Your task to perform on an android device: Open battery settings Image 0: 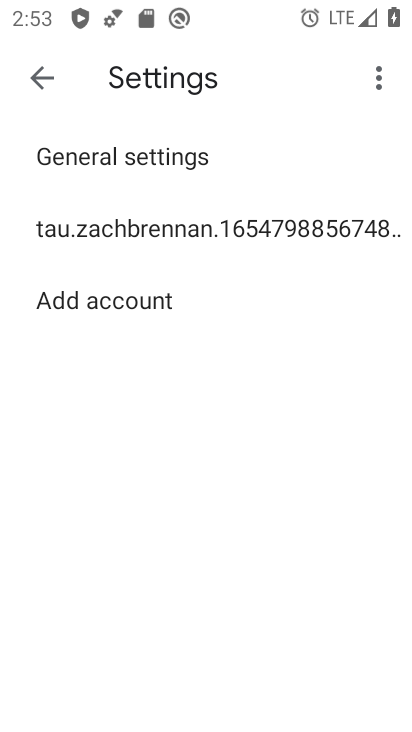
Step 0: press back button
Your task to perform on an android device: Open battery settings Image 1: 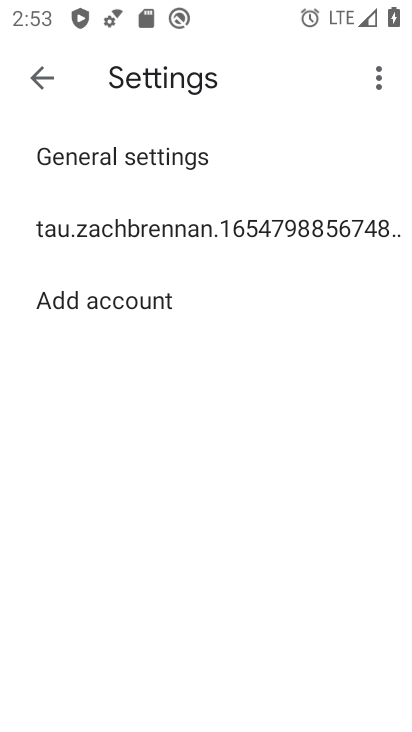
Step 1: press back button
Your task to perform on an android device: Open battery settings Image 2: 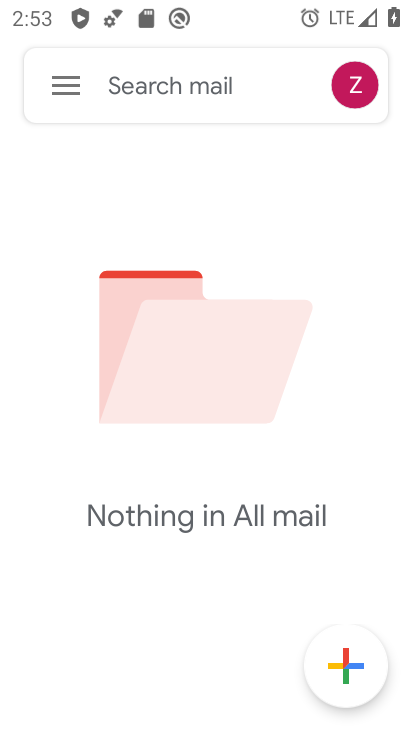
Step 2: press back button
Your task to perform on an android device: Open battery settings Image 3: 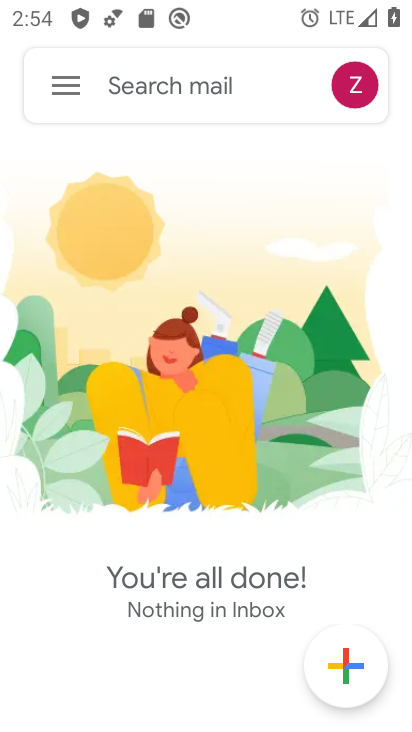
Step 3: press back button
Your task to perform on an android device: Open battery settings Image 4: 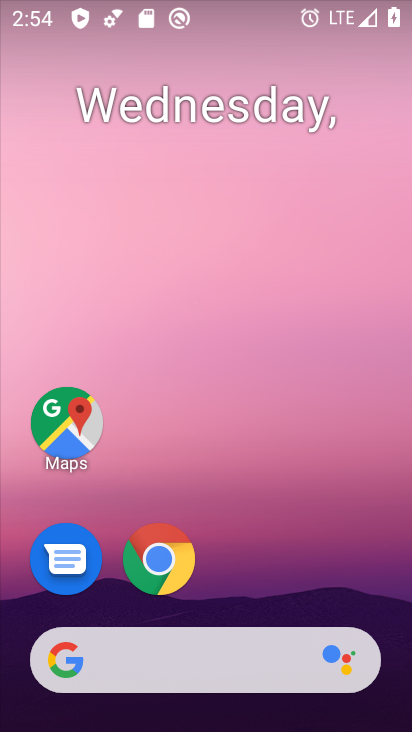
Step 4: drag from (234, 595) to (299, 15)
Your task to perform on an android device: Open battery settings Image 5: 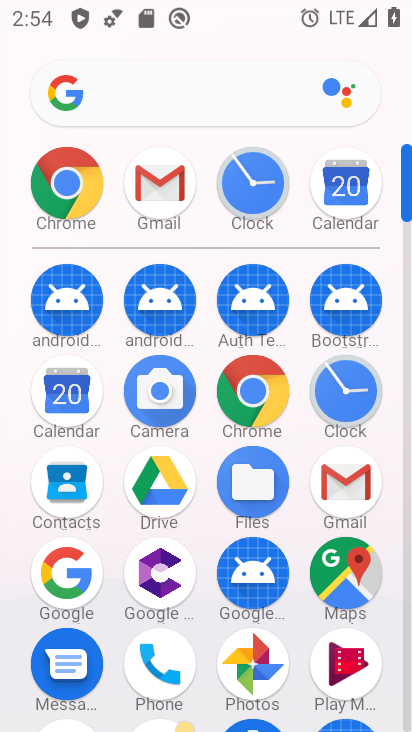
Step 5: drag from (145, 652) to (277, 69)
Your task to perform on an android device: Open battery settings Image 6: 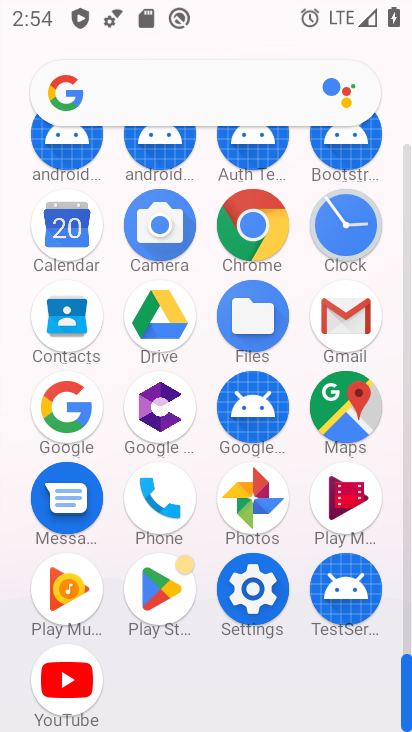
Step 6: click (256, 600)
Your task to perform on an android device: Open battery settings Image 7: 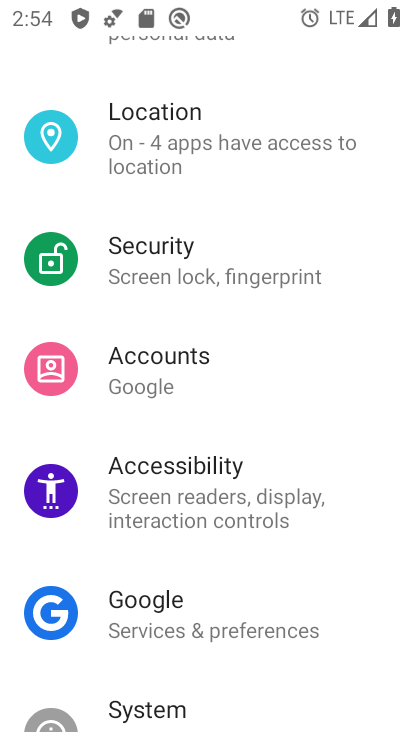
Step 7: drag from (239, 258) to (198, 728)
Your task to perform on an android device: Open battery settings Image 8: 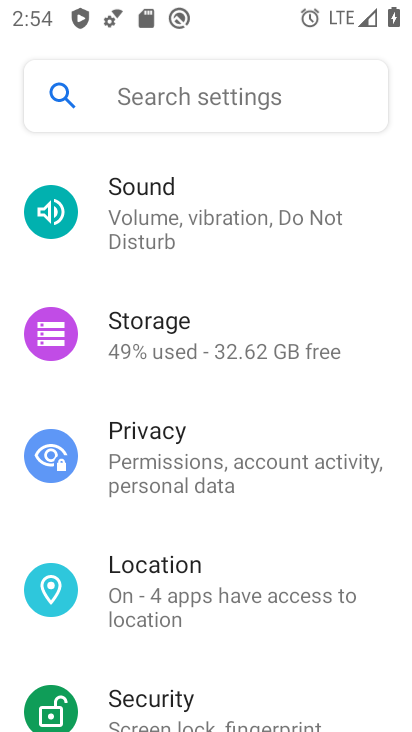
Step 8: drag from (184, 213) to (154, 723)
Your task to perform on an android device: Open battery settings Image 9: 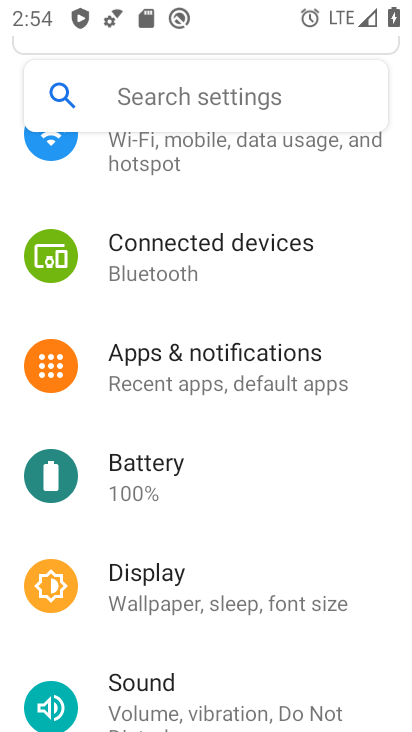
Step 9: click (138, 480)
Your task to perform on an android device: Open battery settings Image 10: 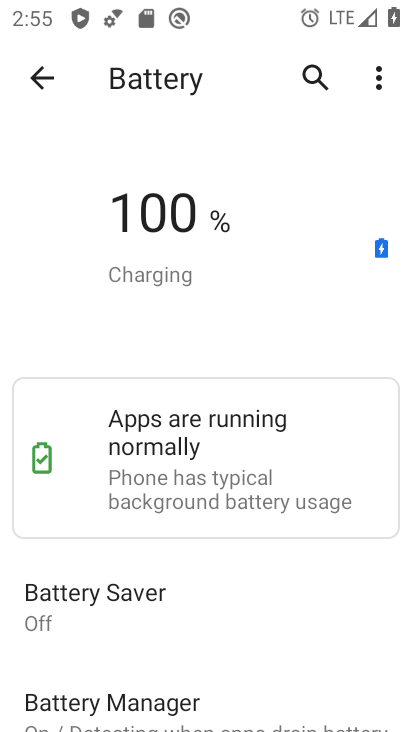
Step 10: task complete